Your task to perform on an android device: Open location settings Image 0: 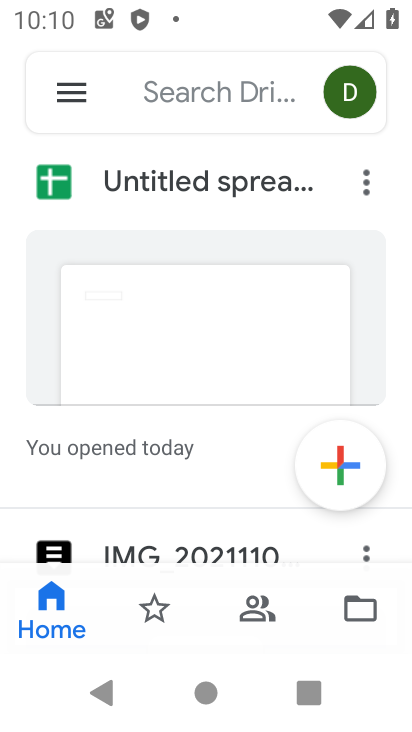
Step 0: press home button
Your task to perform on an android device: Open location settings Image 1: 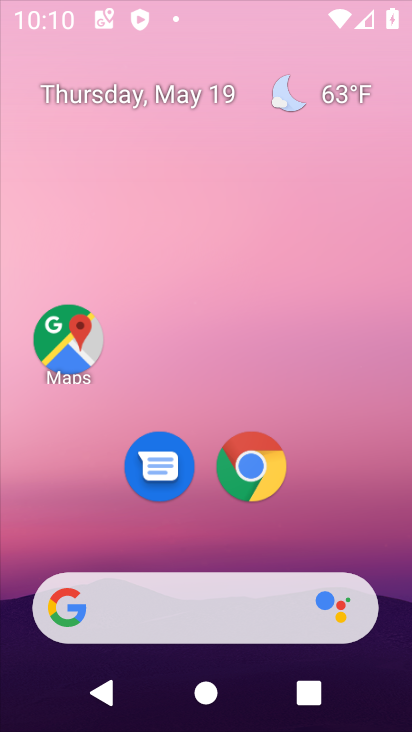
Step 1: drag from (394, 657) to (287, 22)
Your task to perform on an android device: Open location settings Image 2: 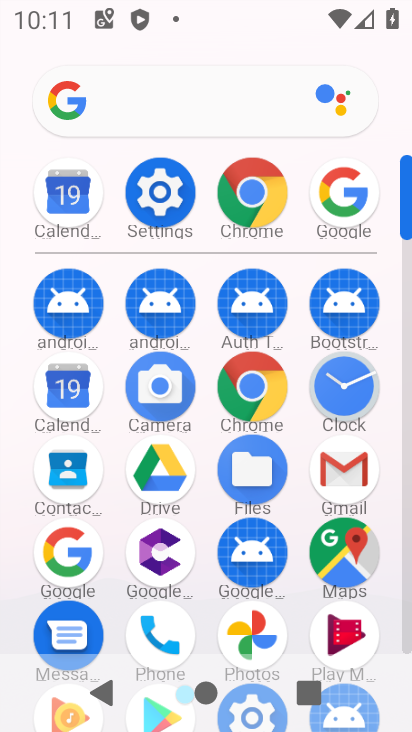
Step 2: click (164, 203)
Your task to perform on an android device: Open location settings Image 3: 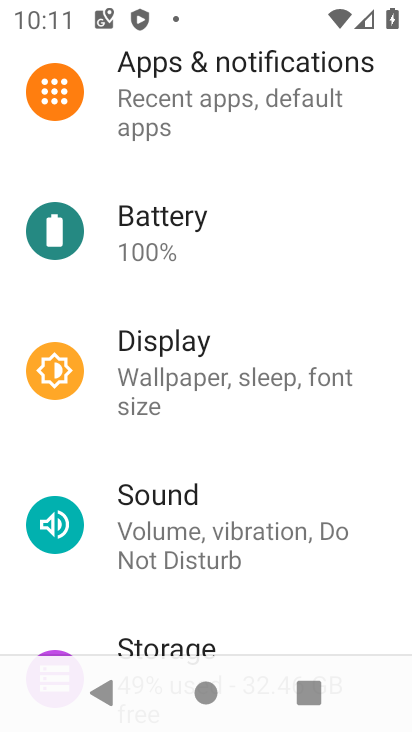
Step 3: drag from (216, 476) to (280, 106)
Your task to perform on an android device: Open location settings Image 4: 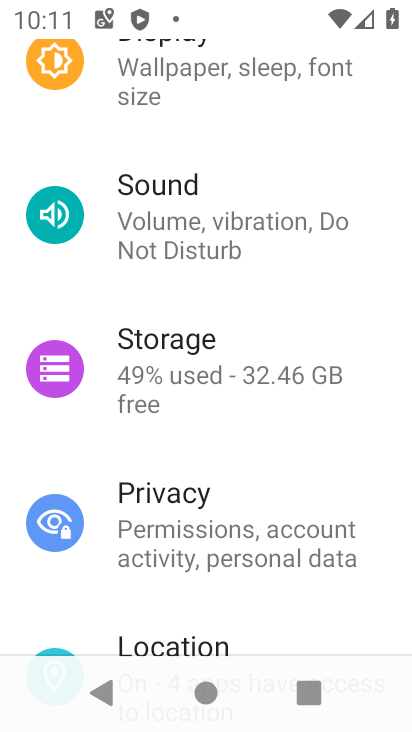
Step 4: click (182, 641)
Your task to perform on an android device: Open location settings Image 5: 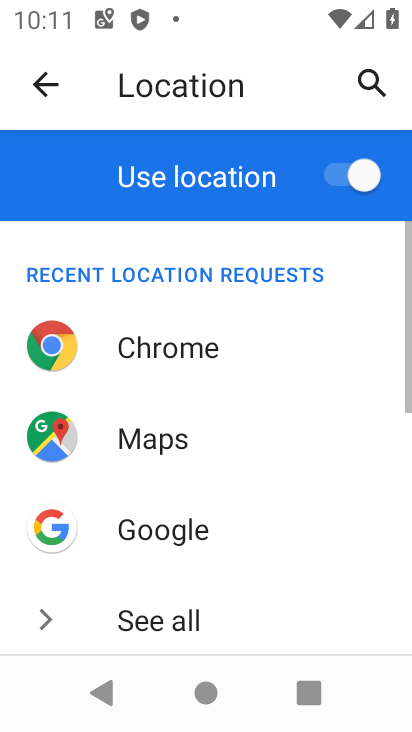
Step 5: task complete